Your task to perform on an android device: change alarm snooze length Image 0: 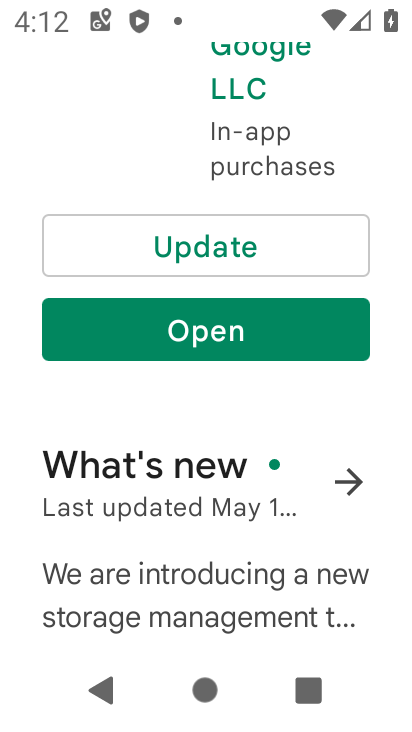
Step 0: press home button
Your task to perform on an android device: change alarm snooze length Image 1: 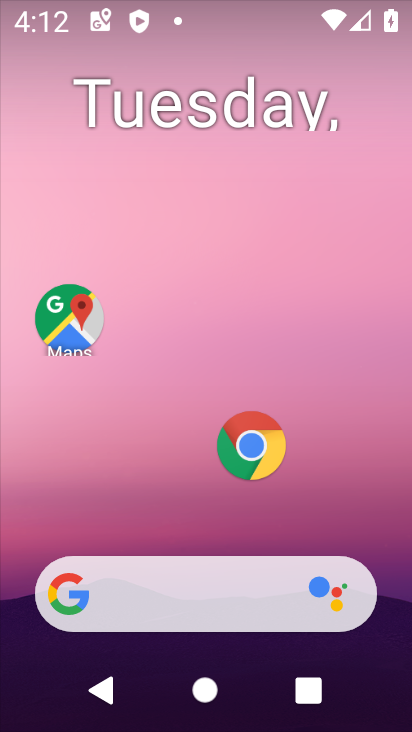
Step 1: drag from (167, 508) to (234, 35)
Your task to perform on an android device: change alarm snooze length Image 2: 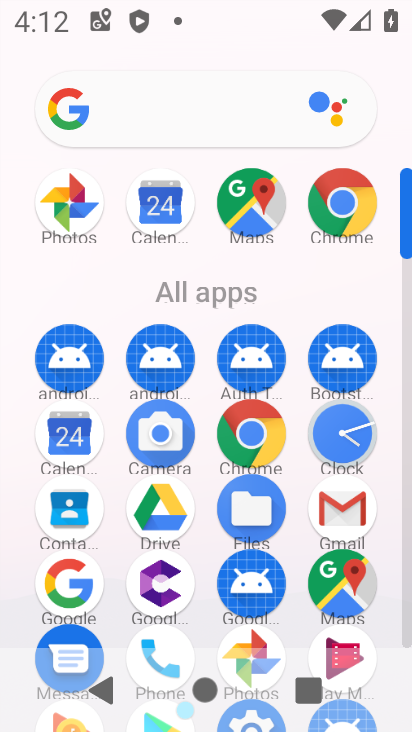
Step 2: click (335, 437)
Your task to perform on an android device: change alarm snooze length Image 3: 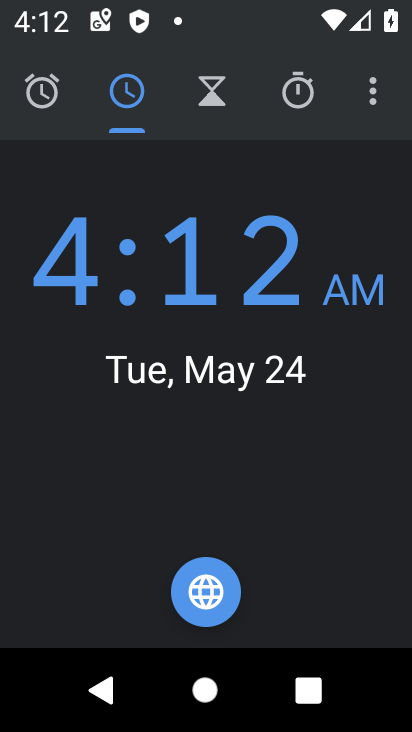
Step 3: click (377, 92)
Your task to perform on an android device: change alarm snooze length Image 4: 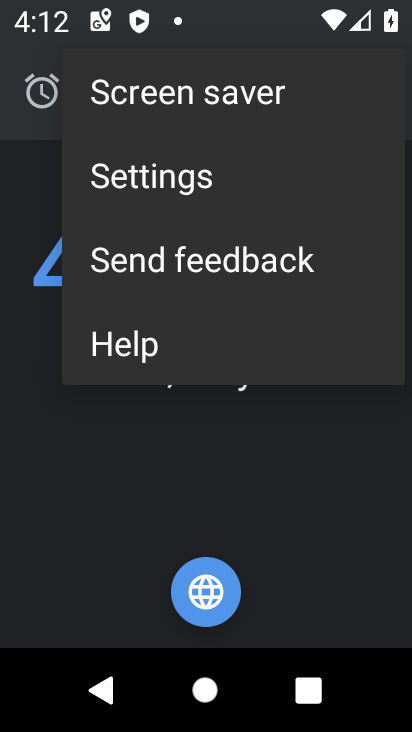
Step 4: click (169, 188)
Your task to perform on an android device: change alarm snooze length Image 5: 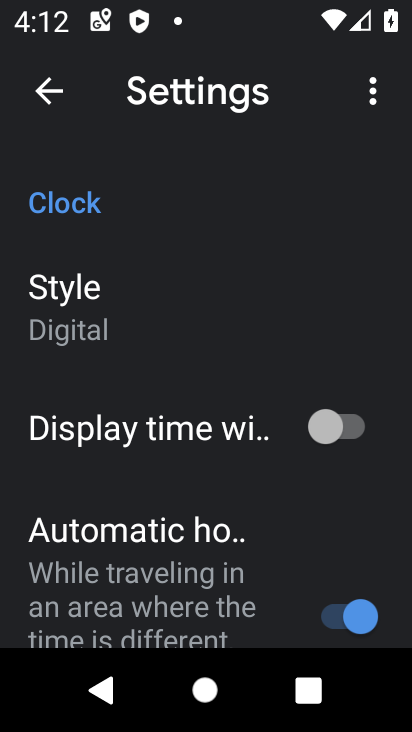
Step 5: drag from (177, 586) to (320, 62)
Your task to perform on an android device: change alarm snooze length Image 6: 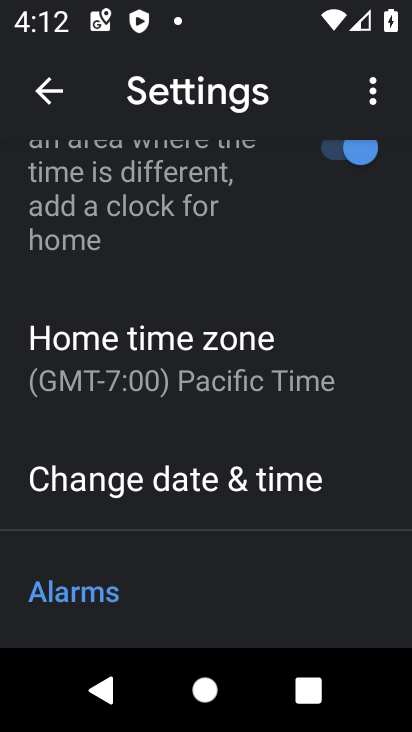
Step 6: drag from (210, 498) to (240, 213)
Your task to perform on an android device: change alarm snooze length Image 7: 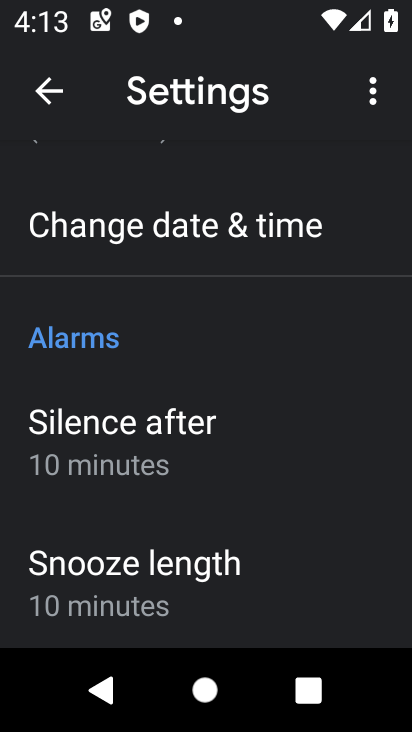
Step 7: drag from (163, 583) to (173, 340)
Your task to perform on an android device: change alarm snooze length Image 8: 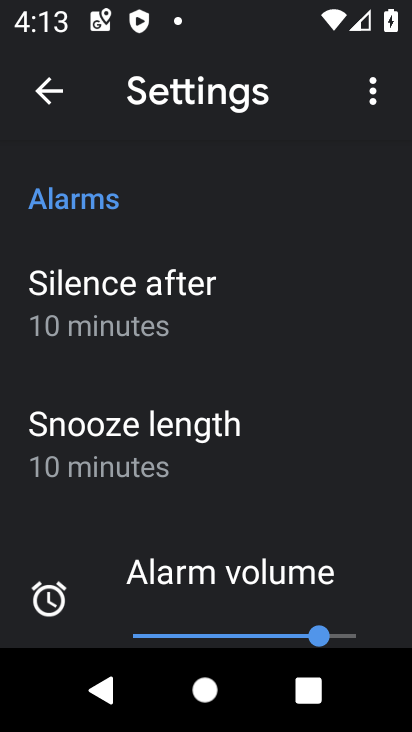
Step 8: click (148, 446)
Your task to perform on an android device: change alarm snooze length Image 9: 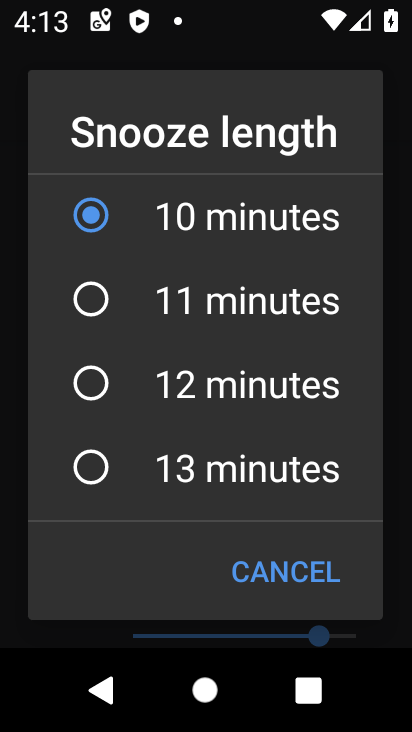
Step 9: click (111, 468)
Your task to perform on an android device: change alarm snooze length Image 10: 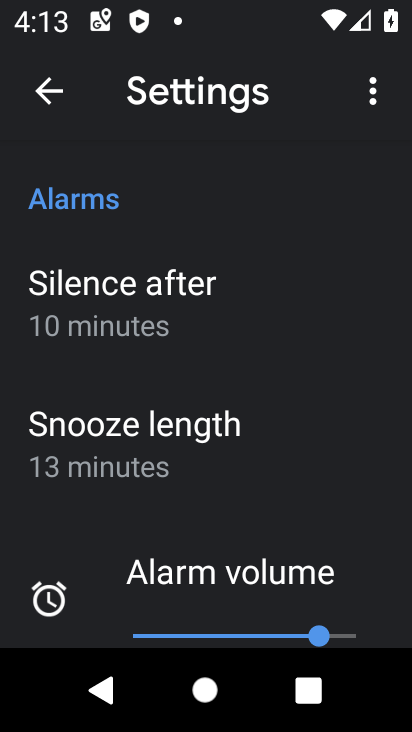
Step 10: task complete